Your task to perform on an android device: toggle show notifications on the lock screen Image 0: 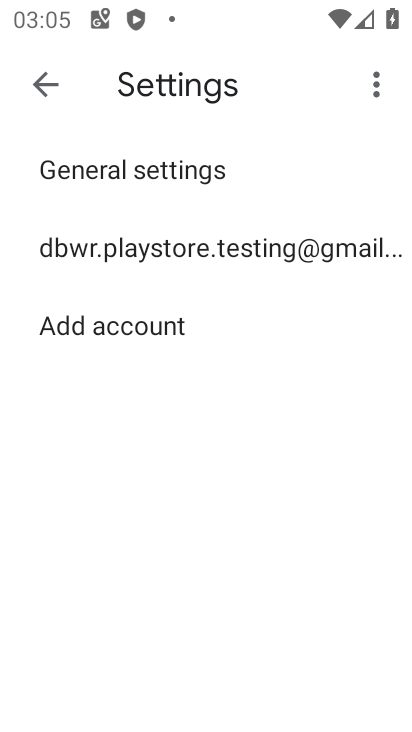
Step 0: press home button
Your task to perform on an android device: toggle show notifications on the lock screen Image 1: 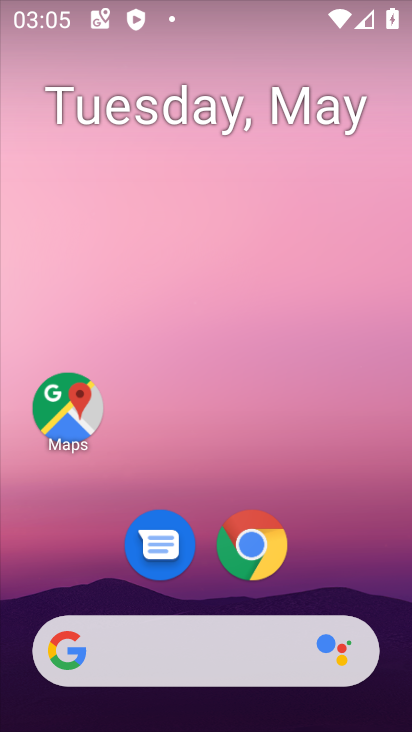
Step 1: drag from (393, 615) to (346, 217)
Your task to perform on an android device: toggle show notifications on the lock screen Image 2: 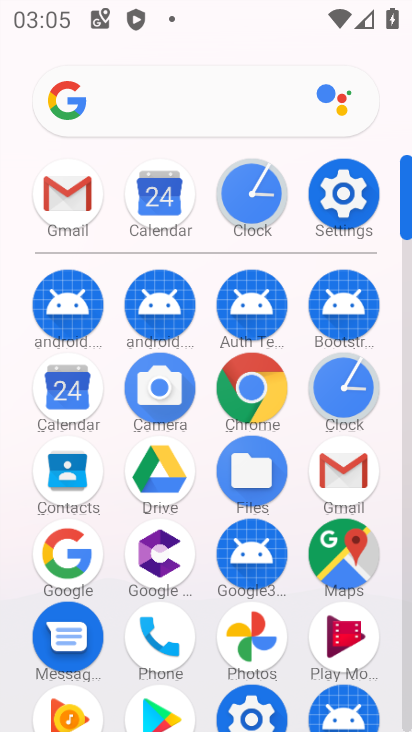
Step 2: click (409, 701)
Your task to perform on an android device: toggle show notifications on the lock screen Image 3: 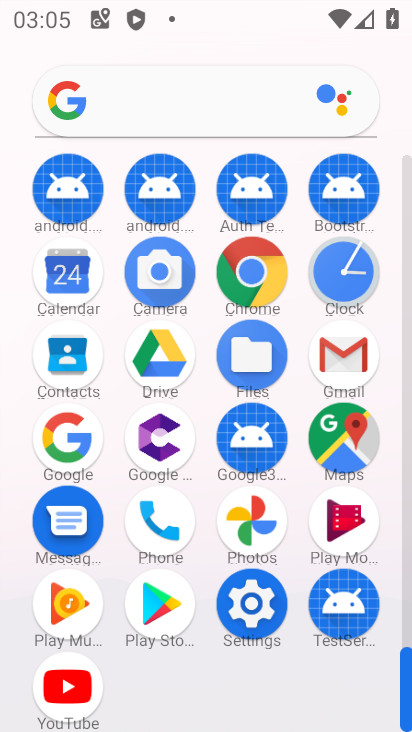
Step 3: click (257, 602)
Your task to perform on an android device: toggle show notifications on the lock screen Image 4: 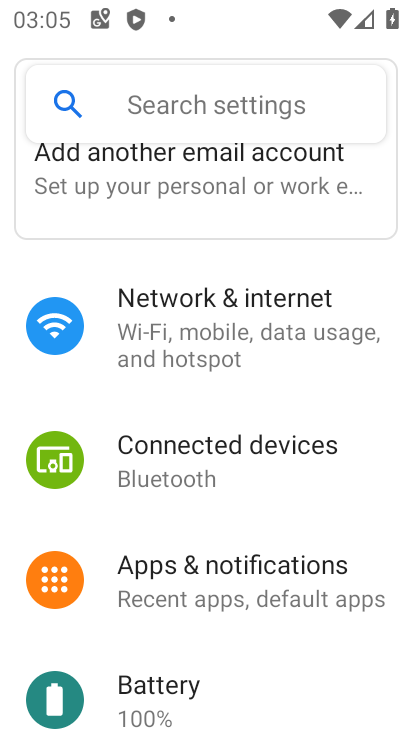
Step 4: click (207, 577)
Your task to perform on an android device: toggle show notifications on the lock screen Image 5: 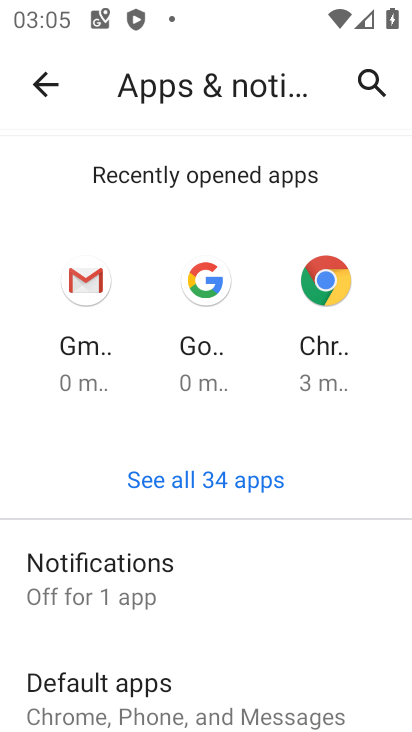
Step 5: drag from (249, 641) to (281, 309)
Your task to perform on an android device: toggle show notifications on the lock screen Image 6: 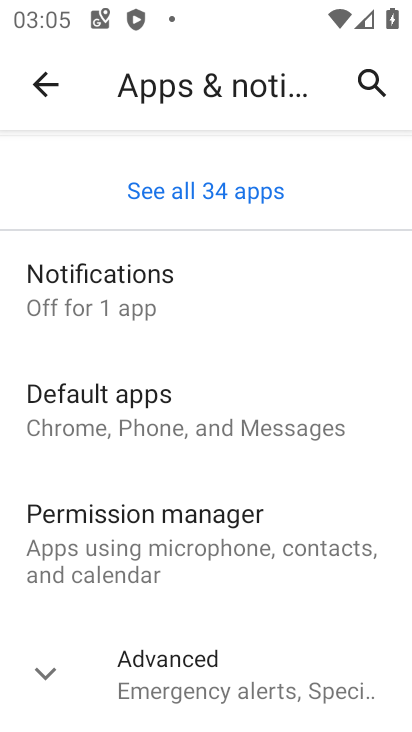
Step 6: click (63, 266)
Your task to perform on an android device: toggle show notifications on the lock screen Image 7: 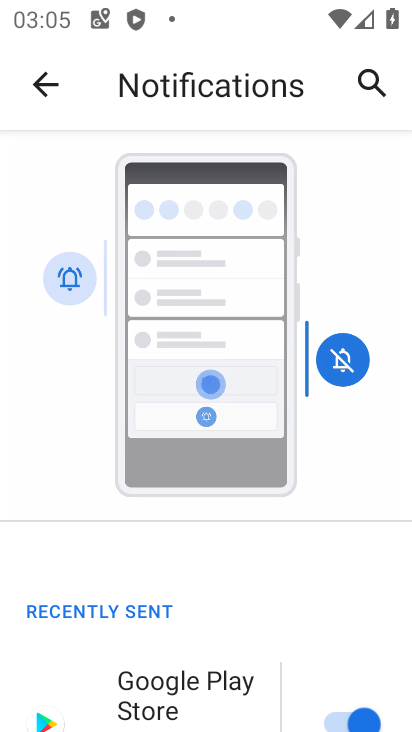
Step 7: drag from (277, 701) to (195, 166)
Your task to perform on an android device: toggle show notifications on the lock screen Image 8: 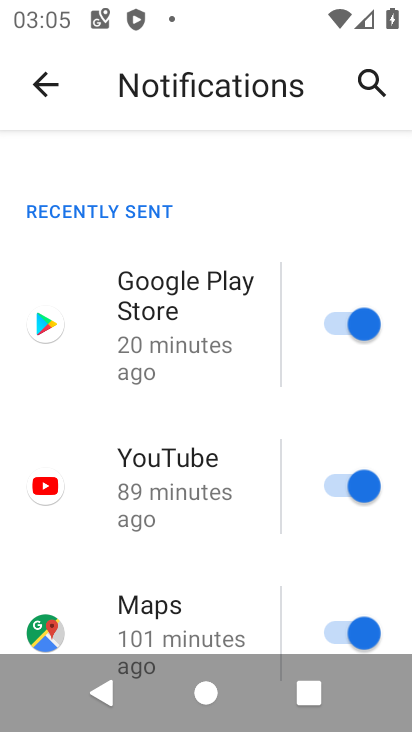
Step 8: drag from (238, 572) to (217, 123)
Your task to perform on an android device: toggle show notifications on the lock screen Image 9: 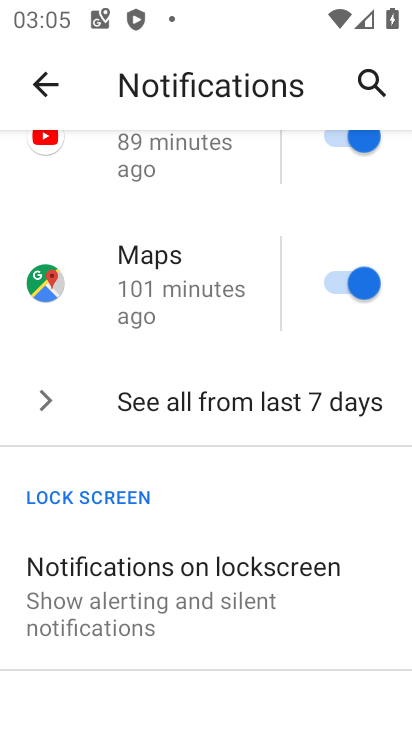
Step 9: click (189, 568)
Your task to perform on an android device: toggle show notifications on the lock screen Image 10: 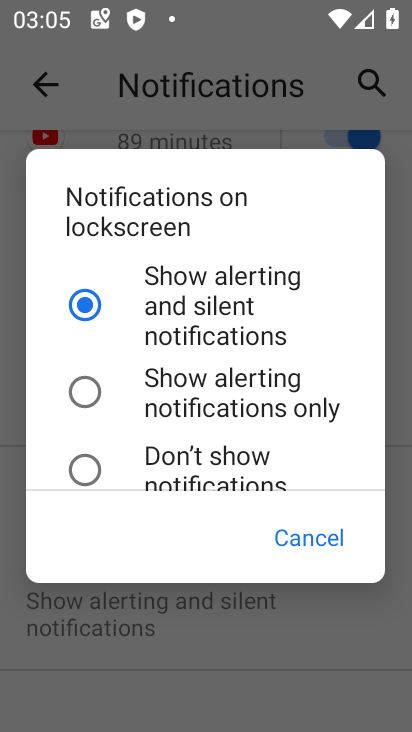
Step 10: click (91, 389)
Your task to perform on an android device: toggle show notifications on the lock screen Image 11: 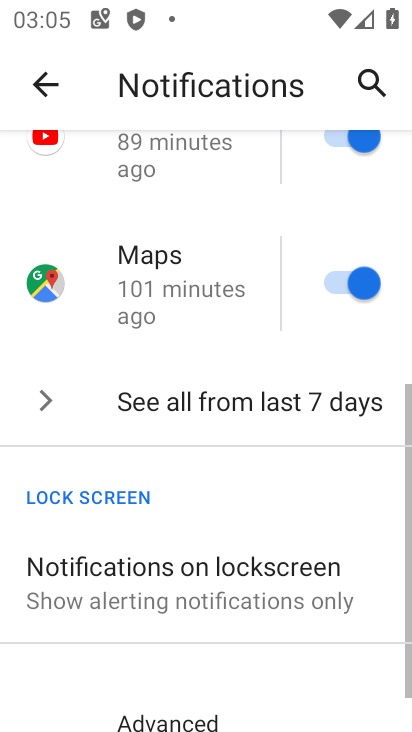
Step 11: task complete